Your task to perform on an android device: Do I have any events today? Image 0: 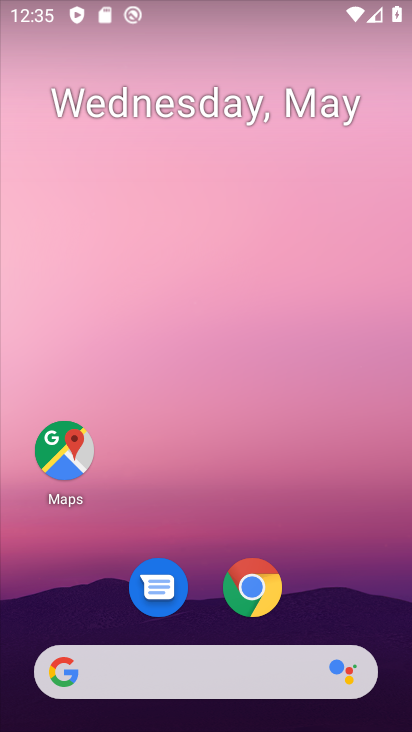
Step 0: drag from (358, 593) to (357, 207)
Your task to perform on an android device: Do I have any events today? Image 1: 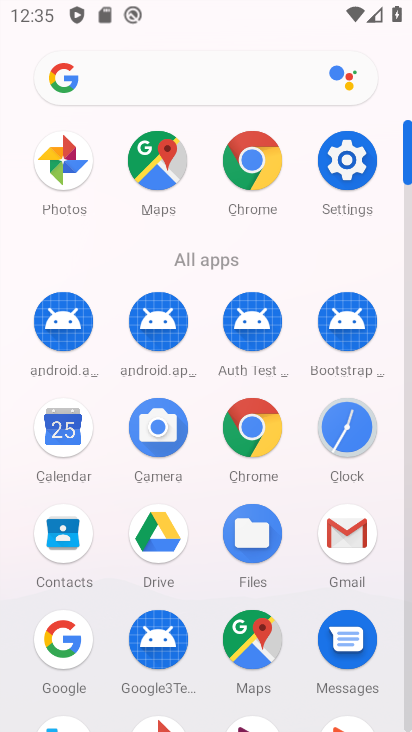
Step 1: click (69, 446)
Your task to perform on an android device: Do I have any events today? Image 2: 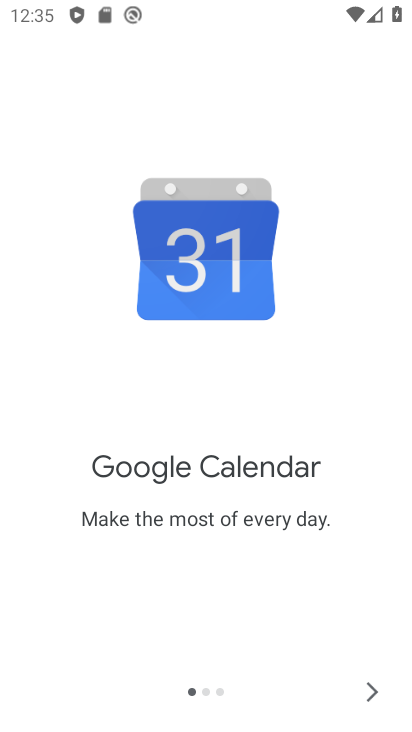
Step 2: click (367, 700)
Your task to perform on an android device: Do I have any events today? Image 3: 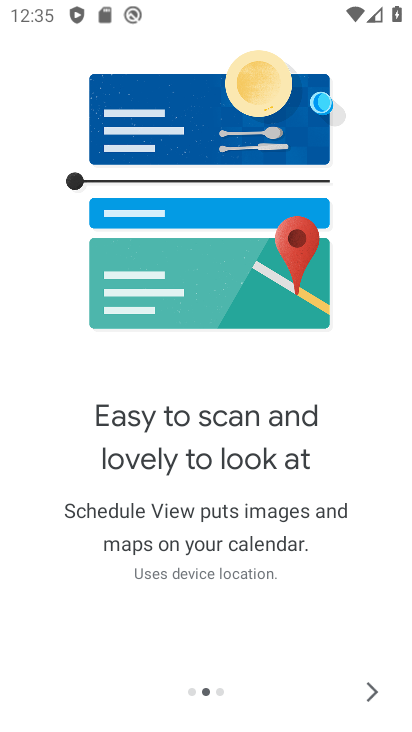
Step 3: click (367, 700)
Your task to perform on an android device: Do I have any events today? Image 4: 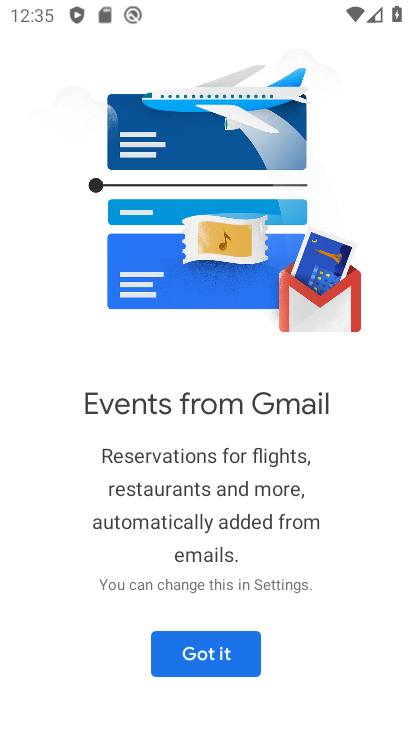
Step 4: click (240, 658)
Your task to perform on an android device: Do I have any events today? Image 5: 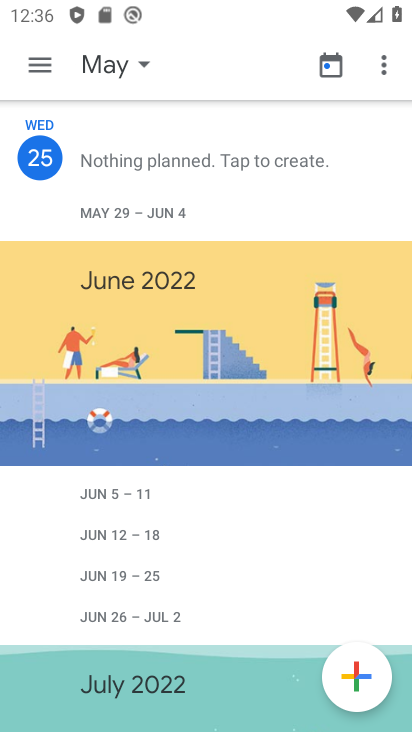
Step 5: click (144, 66)
Your task to perform on an android device: Do I have any events today? Image 6: 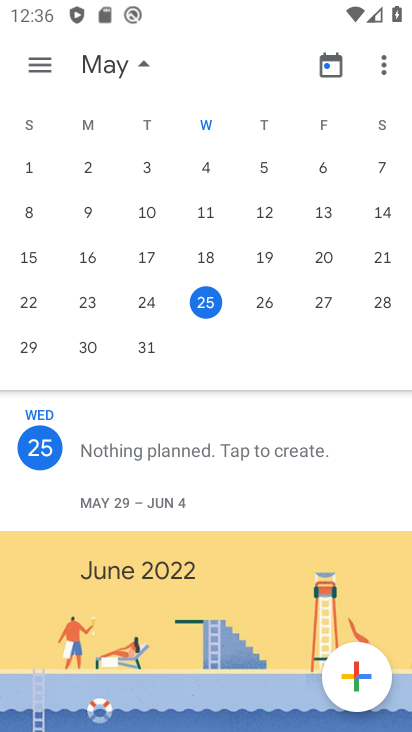
Step 6: click (209, 307)
Your task to perform on an android device: Do I have any events today? Image 7: 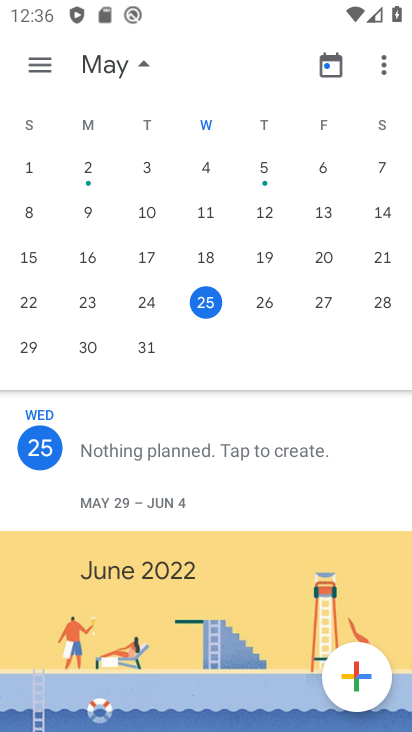
Step 7: click (221, 446)
Your task to perform on an android device: Do I have any events today? Image 8: 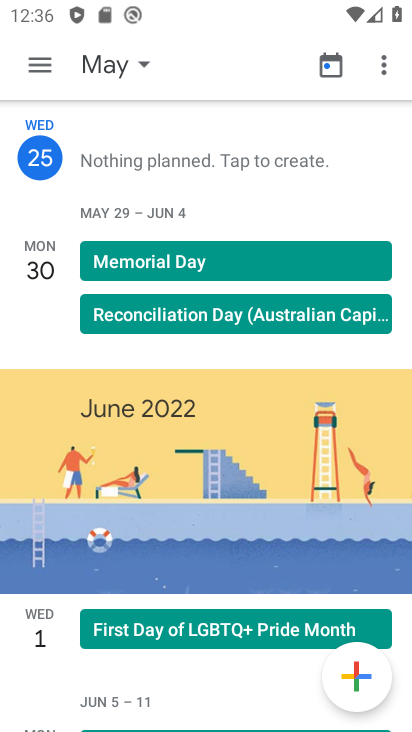
Step 8: task complete